Your task to perform on an android device: open device folders in google photos Image 0: 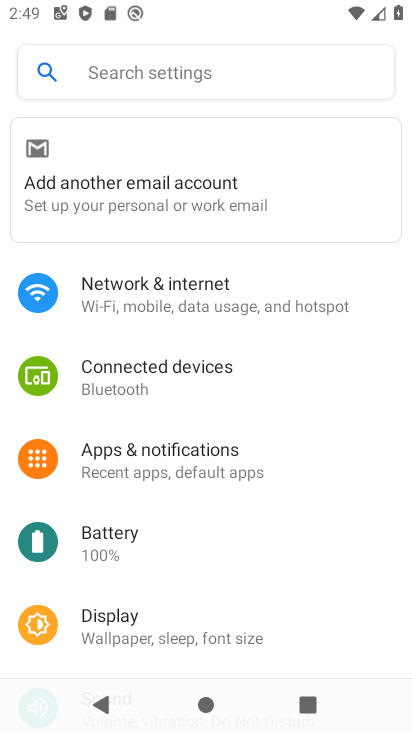
Step 0: press back button
Your task to perform on an android device: open device folders in google photos Image 1: 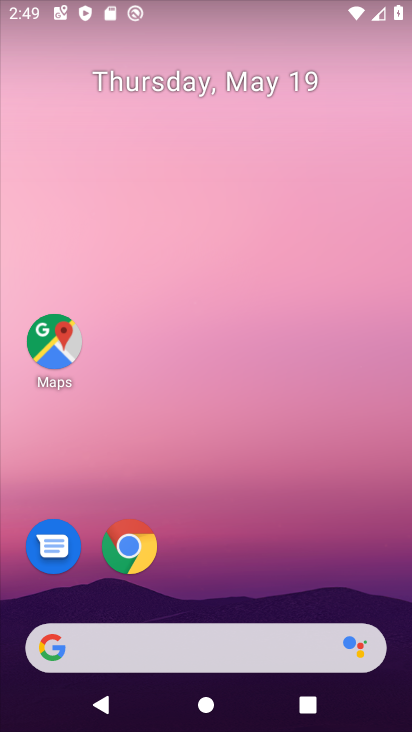
Step 1: drag from (247, 522) to (305, 193)
Your task to perform on an android device: open device folders in google photos Image 2: 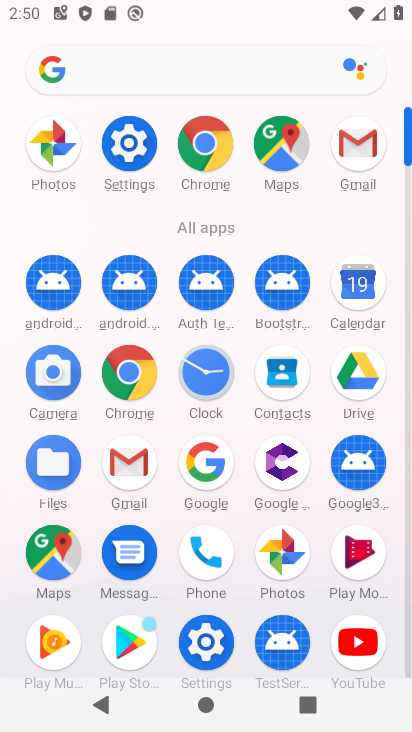
Step 2: click (54, 141)
Your task to perform on an android device: open device folders in google photos Image 3: 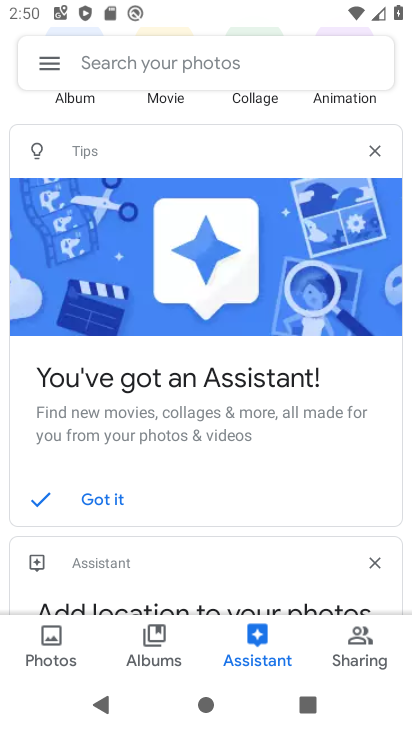
Step 3: click (42, 65)
Your task to perform on an android device: open device folders in google photos Image 4: 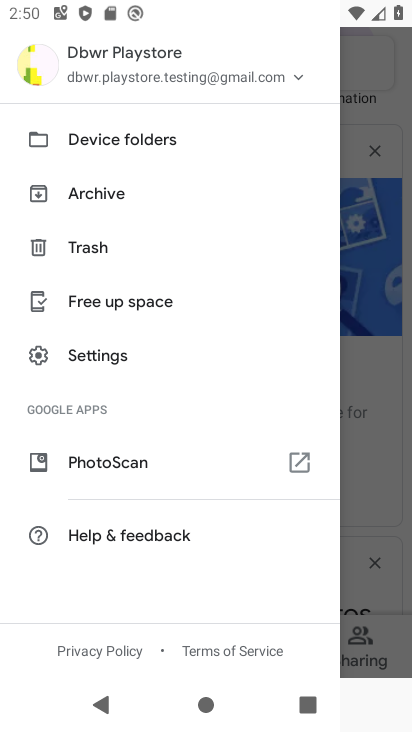
Step 4: click (101, 137)
Your task to perform on an android device: open device folders in google photos Image 5: 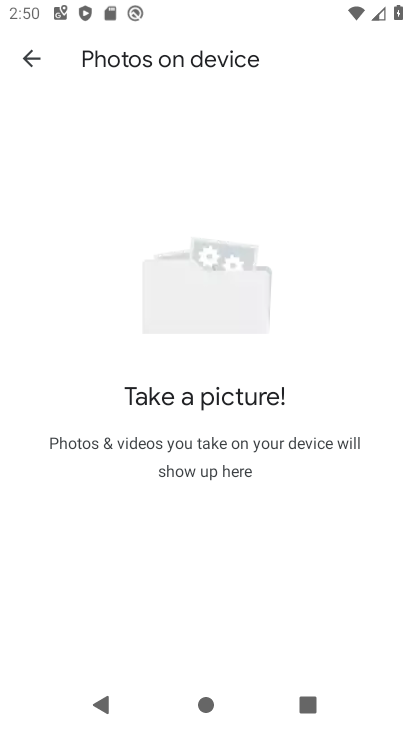
Step 5: task complete